Your task to perform on an android device: Go to Amazon Image 0: 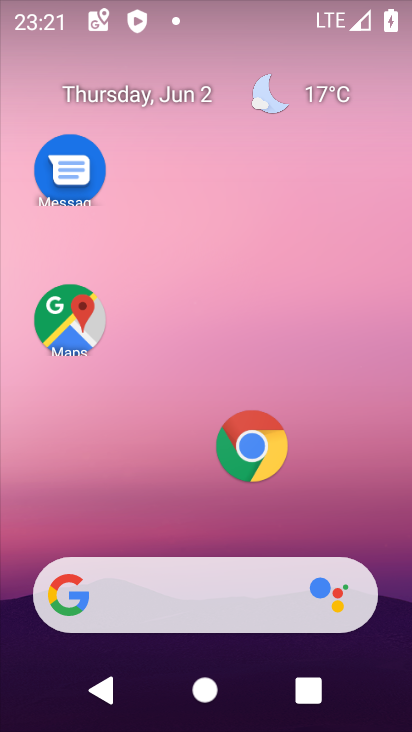
Step 0: press home button
Your task to perform on an android device: Go to Amazon Image 1: 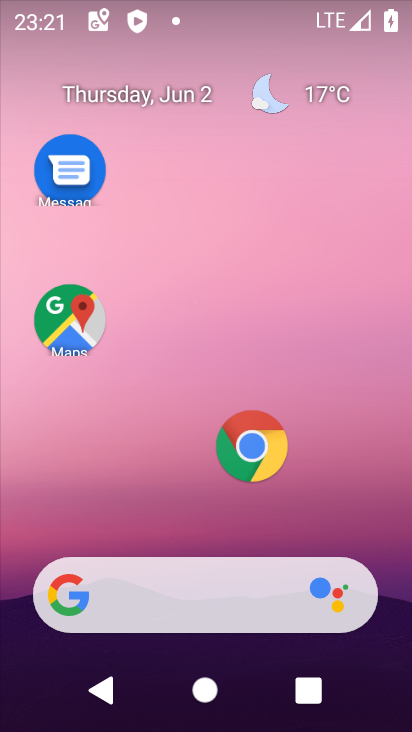
Step 1: drag from (384, 520) to (403, 123)
Your task to perform on an android device: Go to Amazon Image 2: 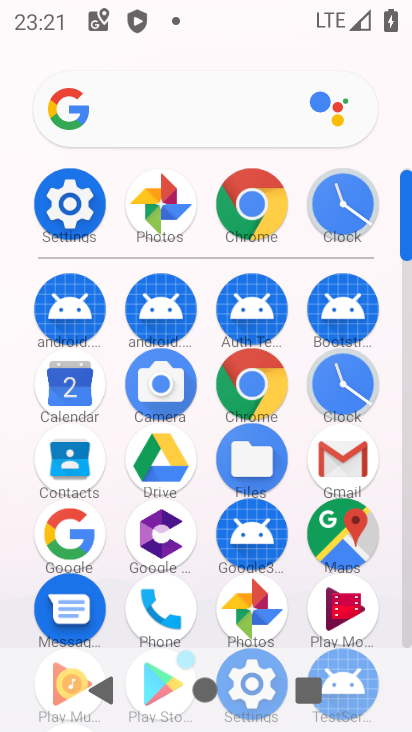
Step 2: click (259, 193)
Your task to perform on an android device: Go to Amazon Image 3: 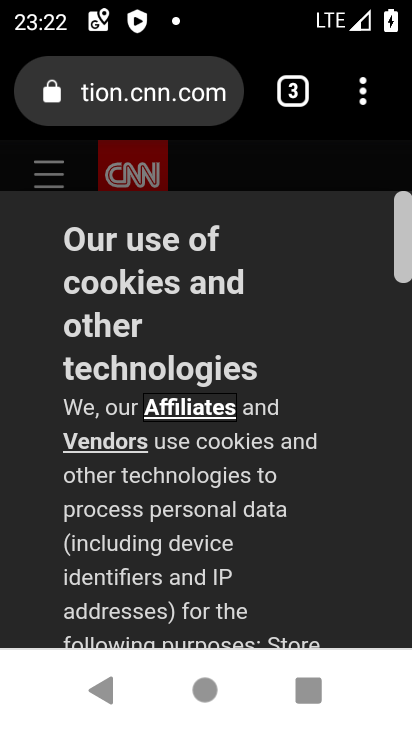
Step 3: click (364, 84)
Your task to perform on an android device: Go to Amazon Image 4: 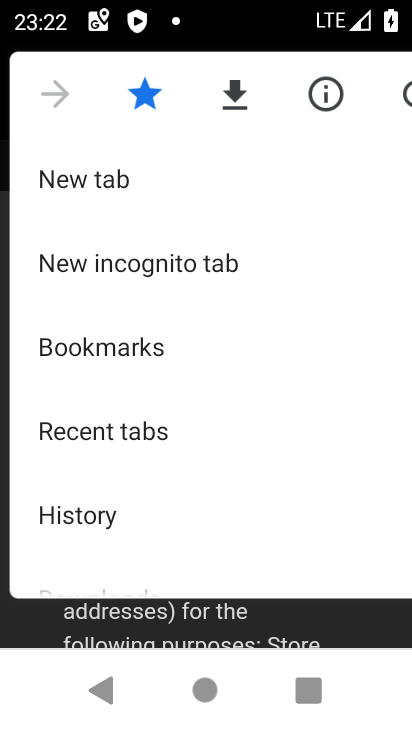
Step 4: click (109, 188)
Your task to perform on an android device: Go to Amazon Image 5: 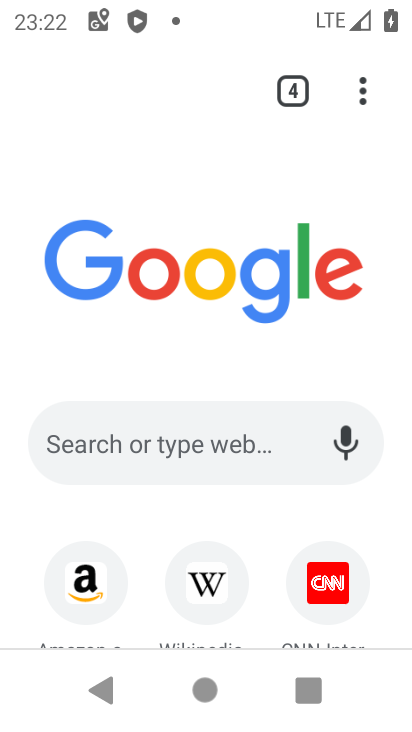
Step 5: click (71, 568)
Your task to perform on an android device: Go to Amazon Image 6: 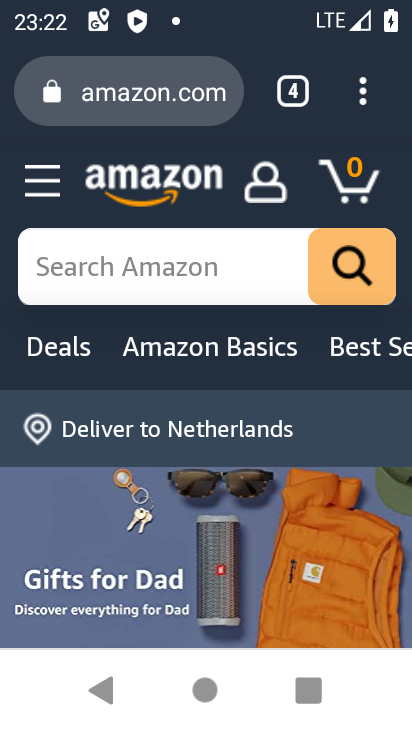
Step 6: task complete